Your task to perform on an android device: install app "ColorNote Notepad Notes" Image 0: 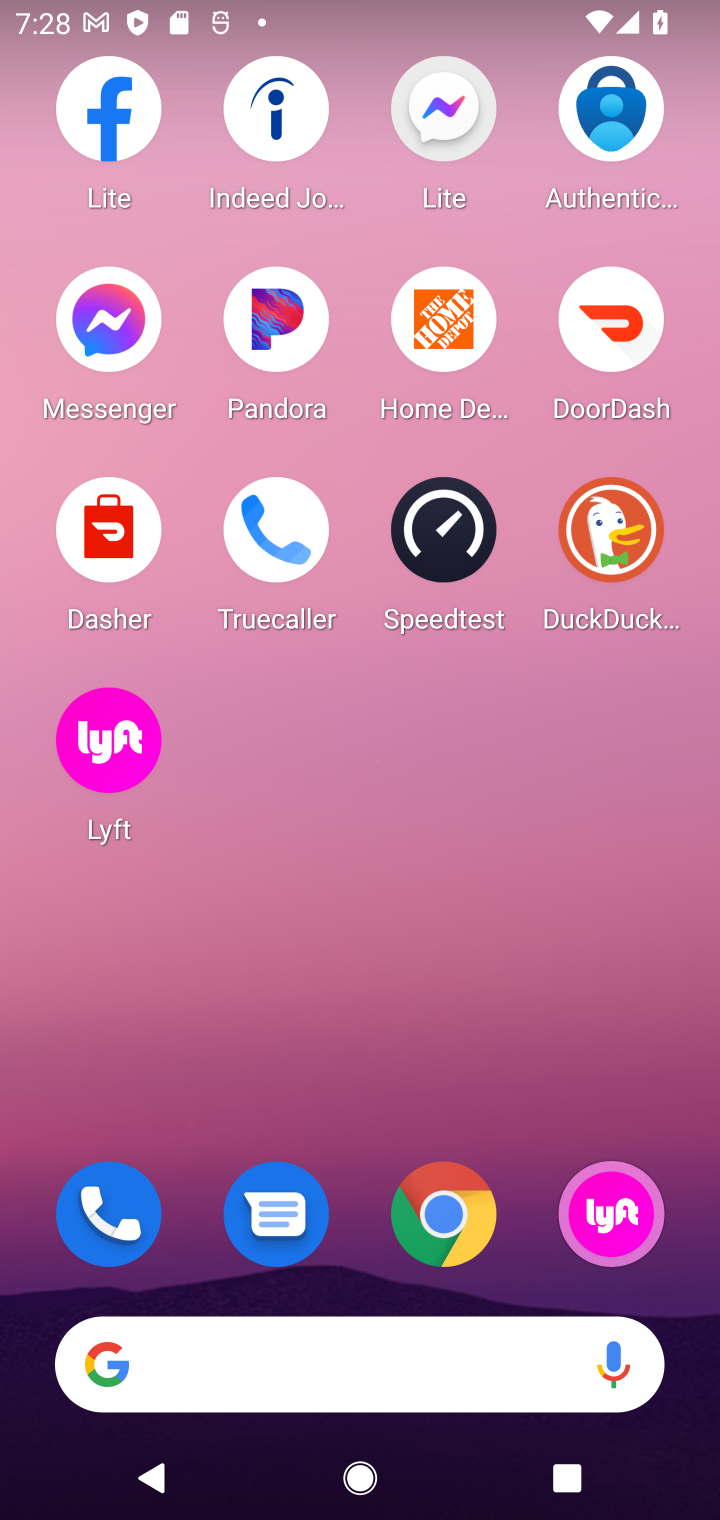
Step 0: drag from (351, 953) to (493, 29)
Your task to perform on an android device: install app "ColorNote Notepad Notes" Image 1: 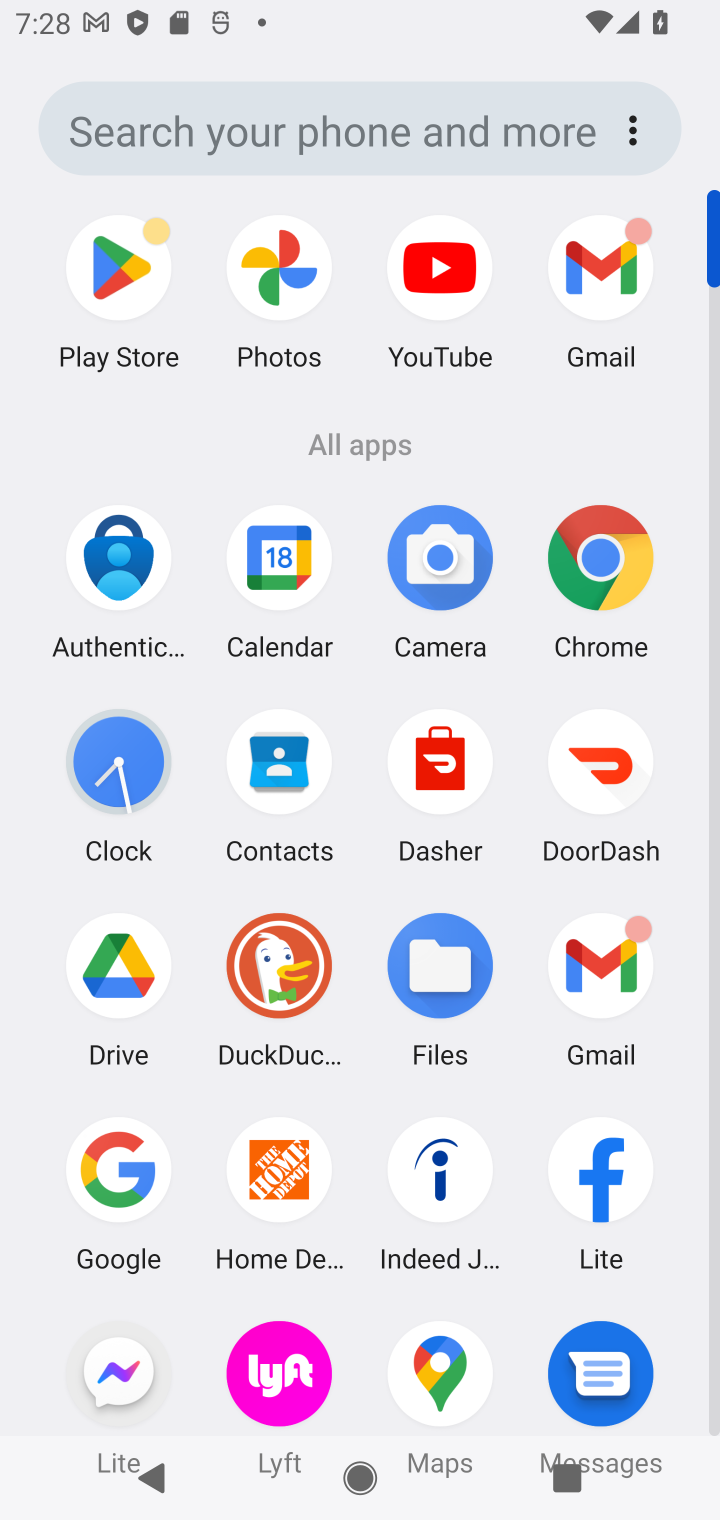
Step 1: click (128, 278)
Your task to perform on an android device: install app "ColorNote Notepad Notes" Image 2: 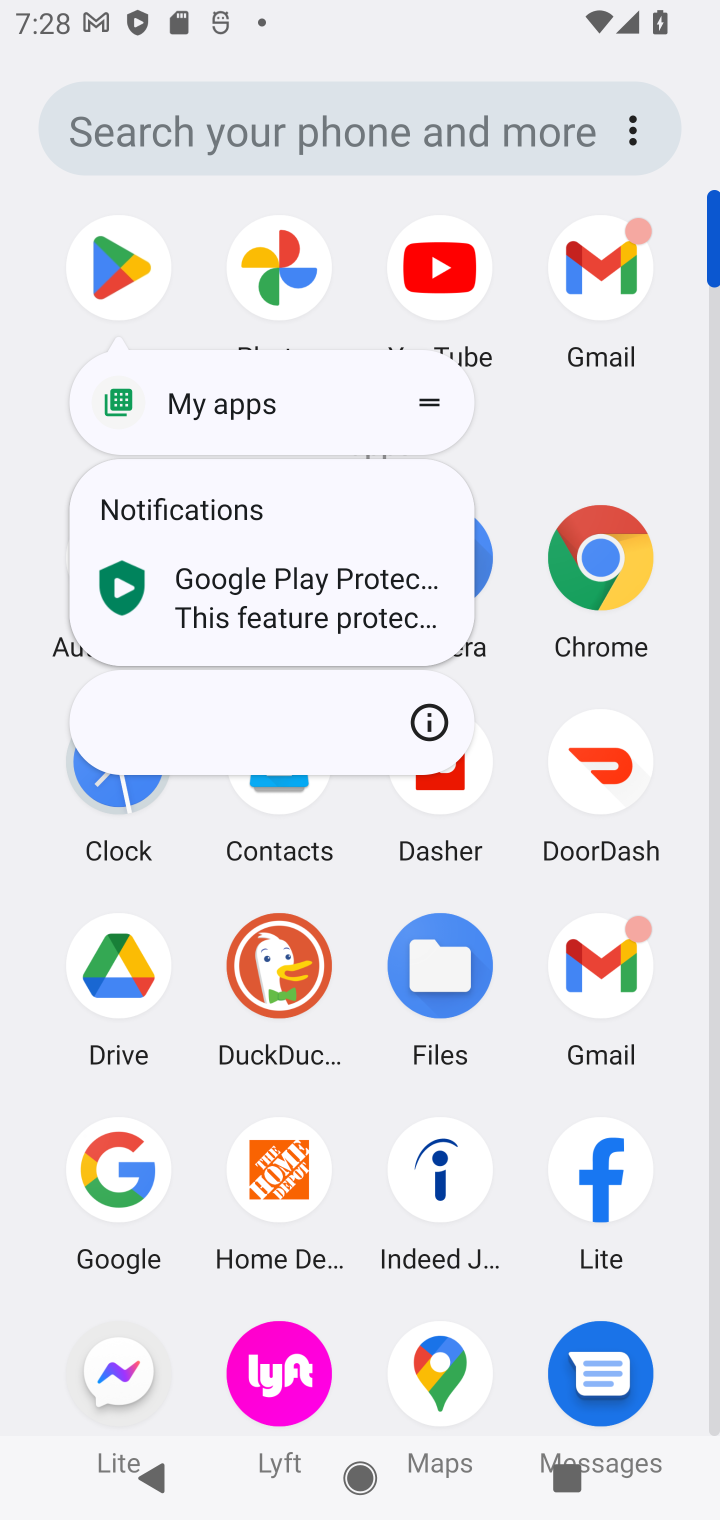
Step 2: click (133, 269)
Your task to perform on an android device: install app "ColorNote Notepad Notes" Image 3: 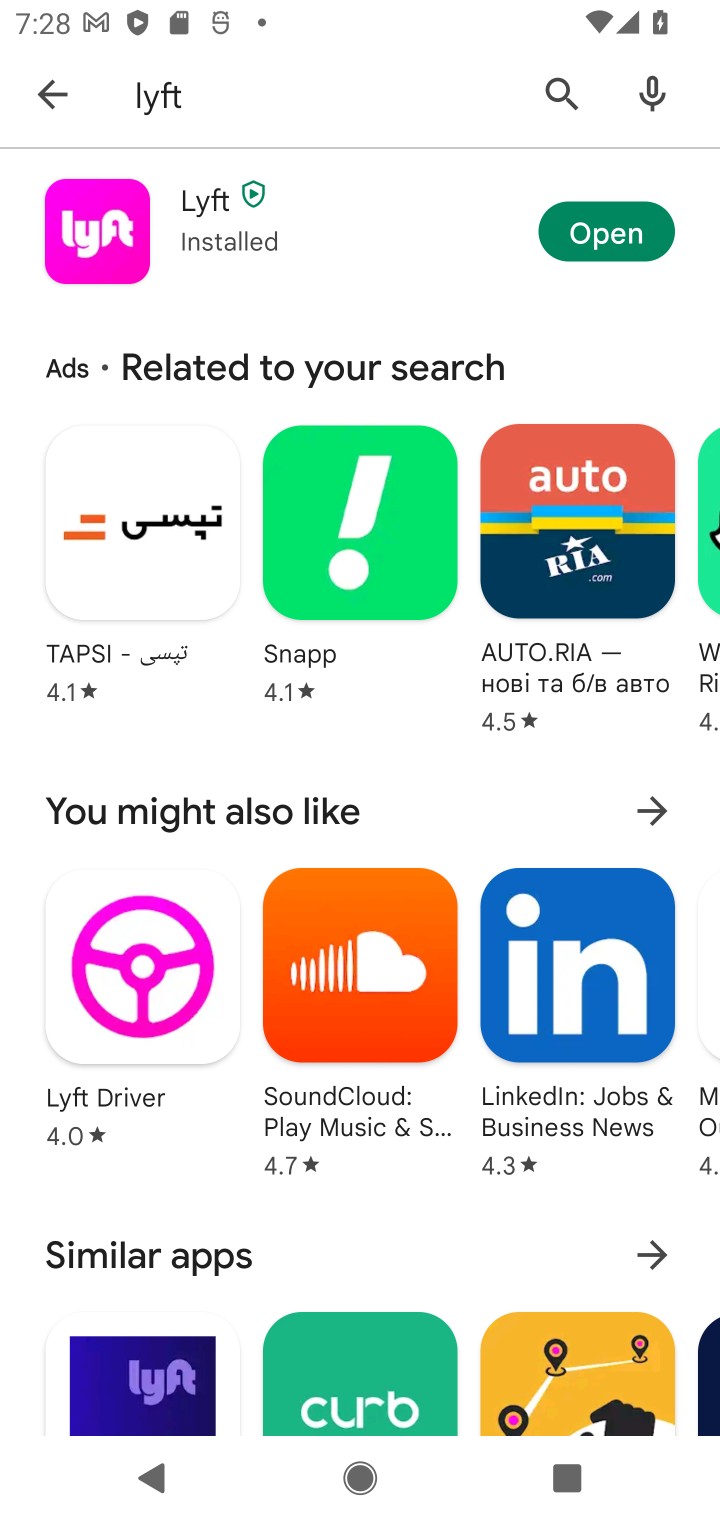
Step 3: click (543, 117)
Your task to perform on an android device: install app "ColorNote Notepad Notes" Image 4: 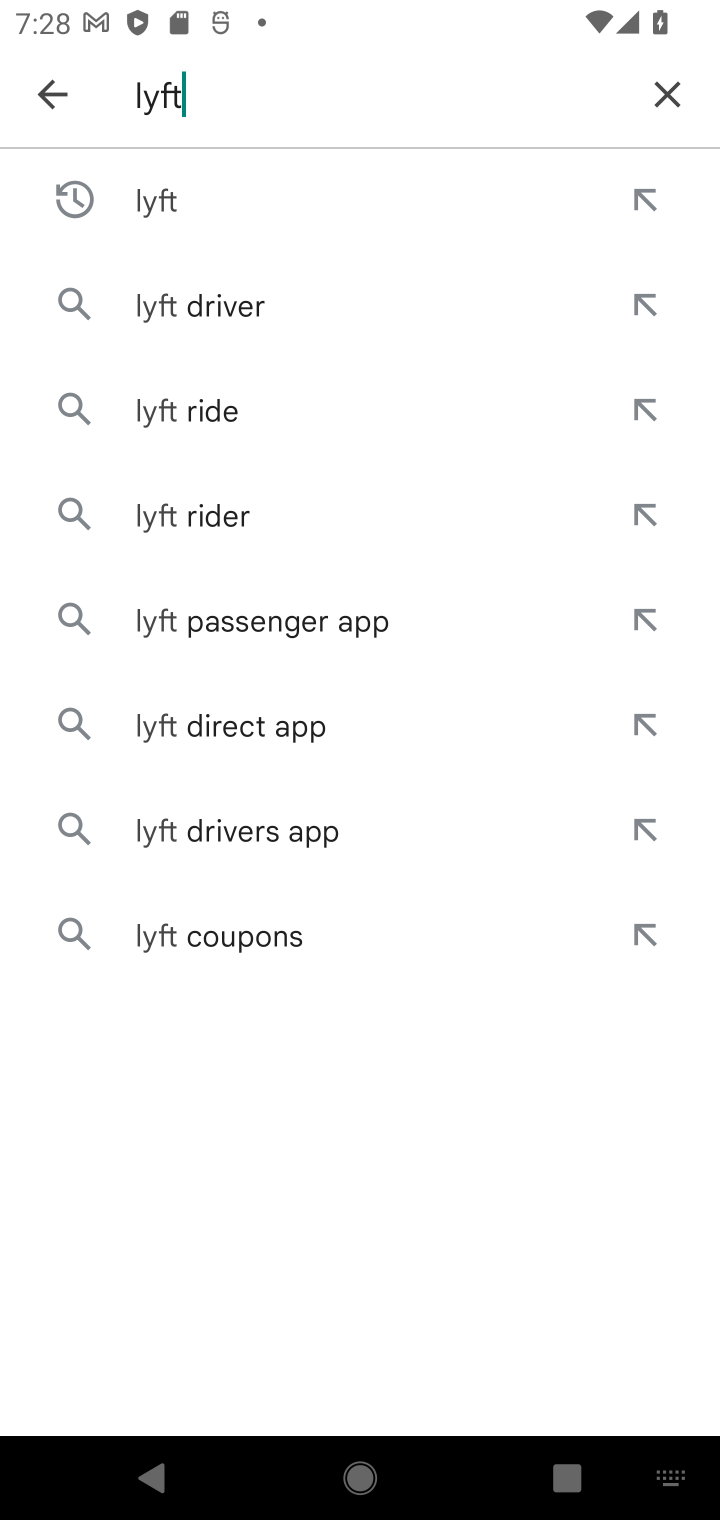
Step 4: click (655, 93)
Your task to perform on an android device: install app "ColorNote Notepad Notes" Image 5: 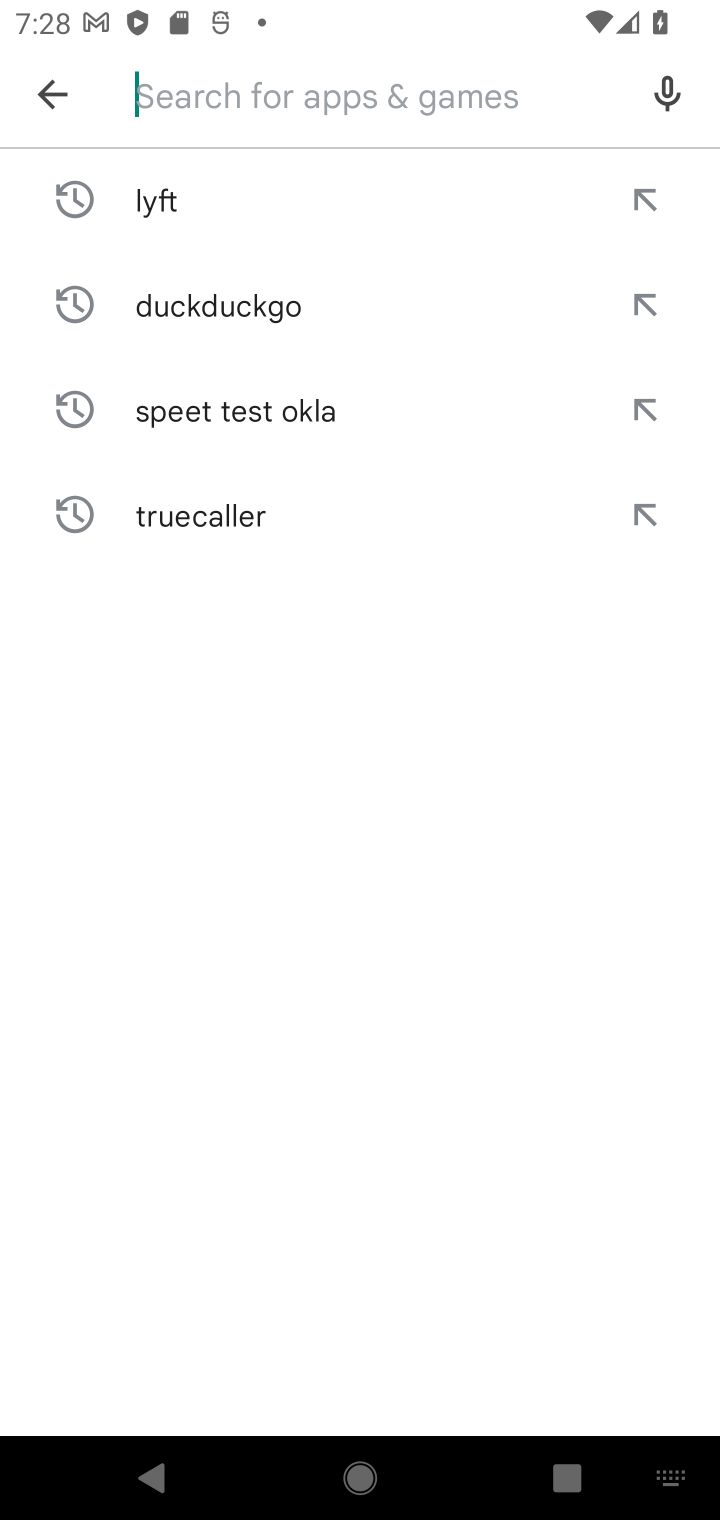
Step 5: type "colornotepad"
Your task to perform on an android device: install app "ColorNote Notepad Notes" Image 6: 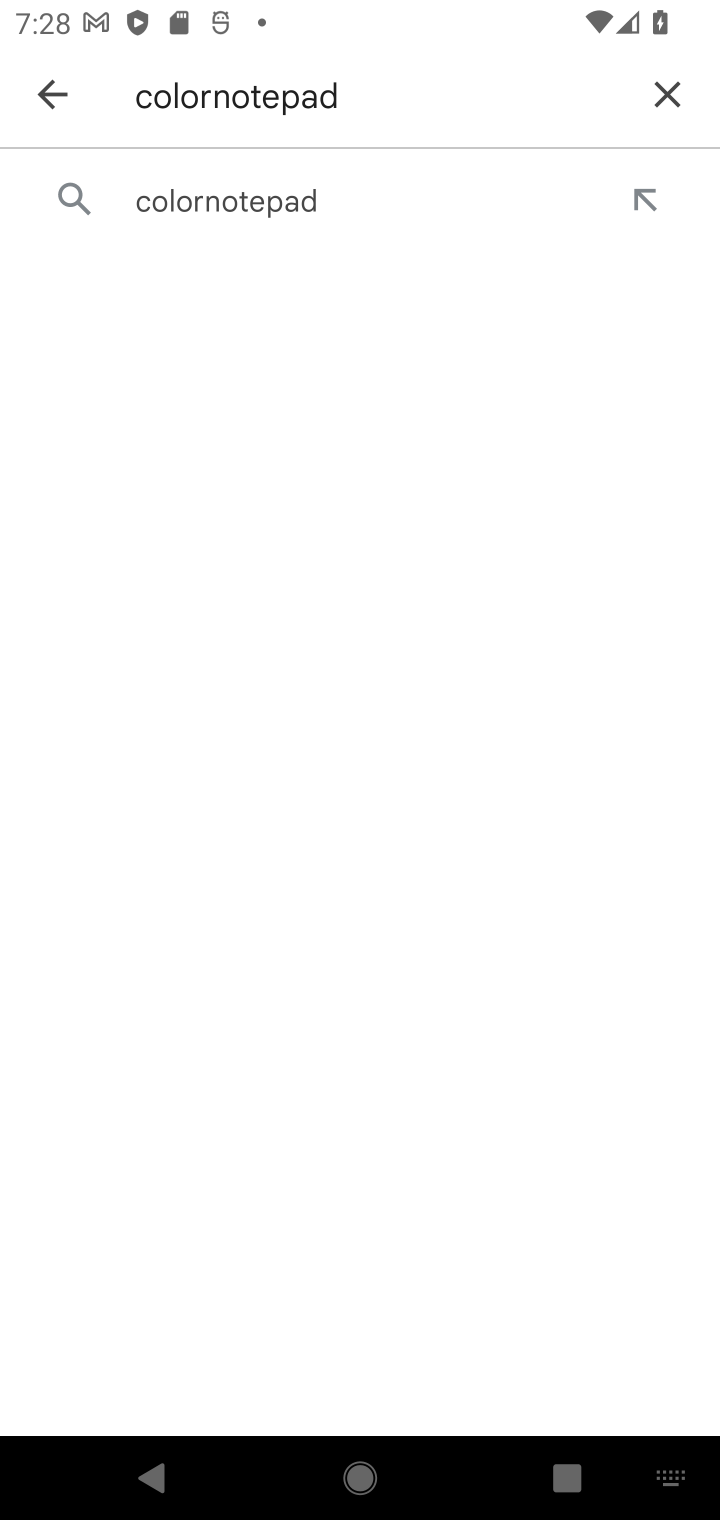
Step 6: click (268, 194)
Your task to perform on an android device: install app "ColorNote Notepad Notes" Image 7: 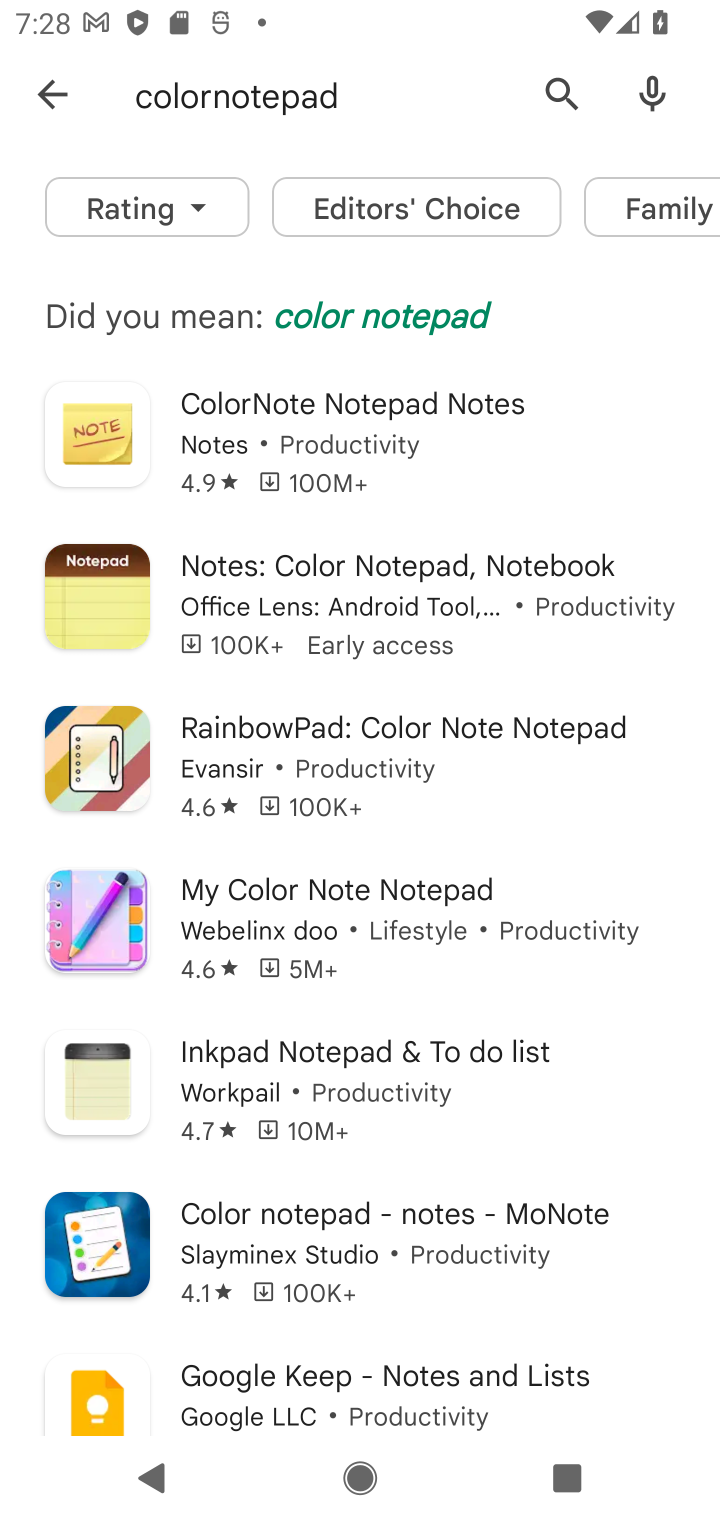
Step 7: click (329, 440)
Your task to perform on an android device: install app "ColorNote Notepad Notes" Image 8: 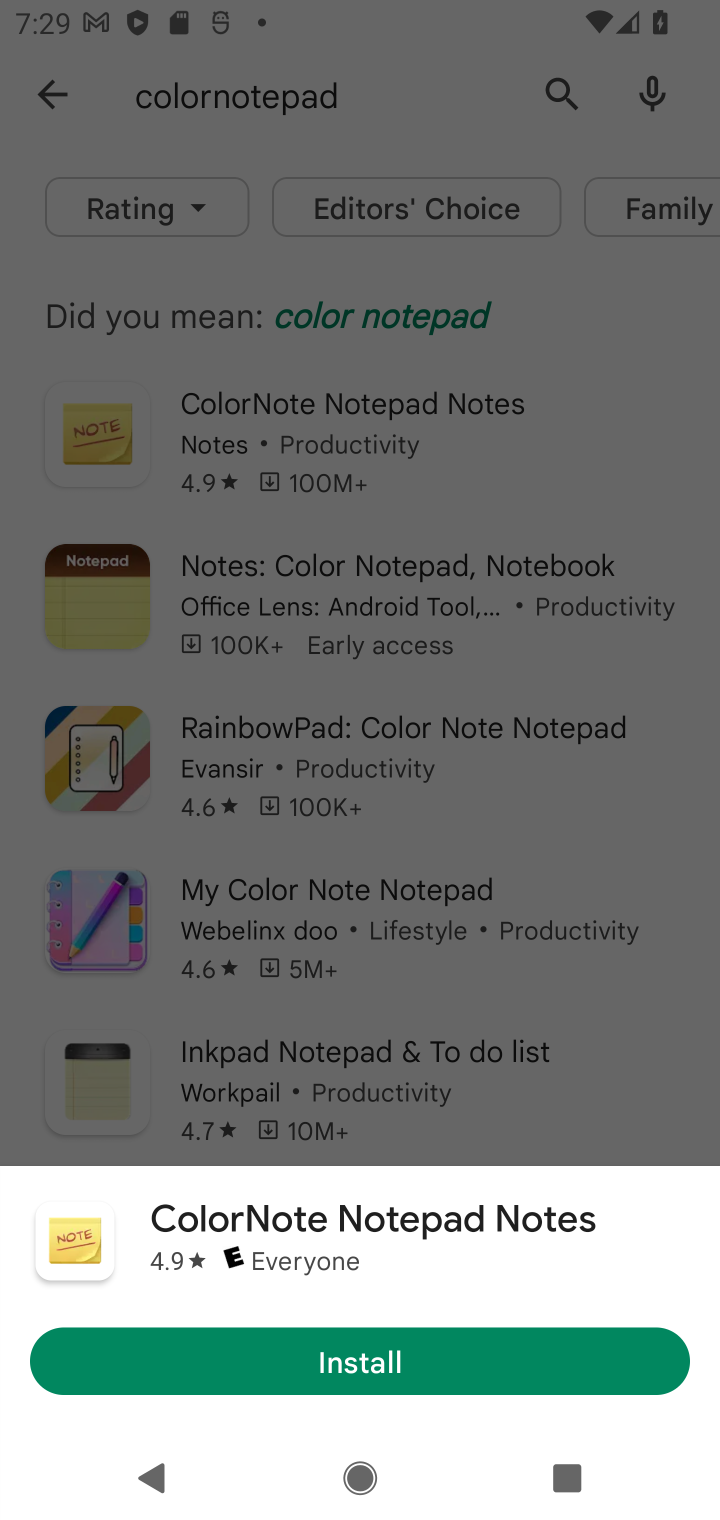
Step 8: click (370, 1354)
Your task to perform on an android device: install app "ColorNote Notepad Notes" Image 9: 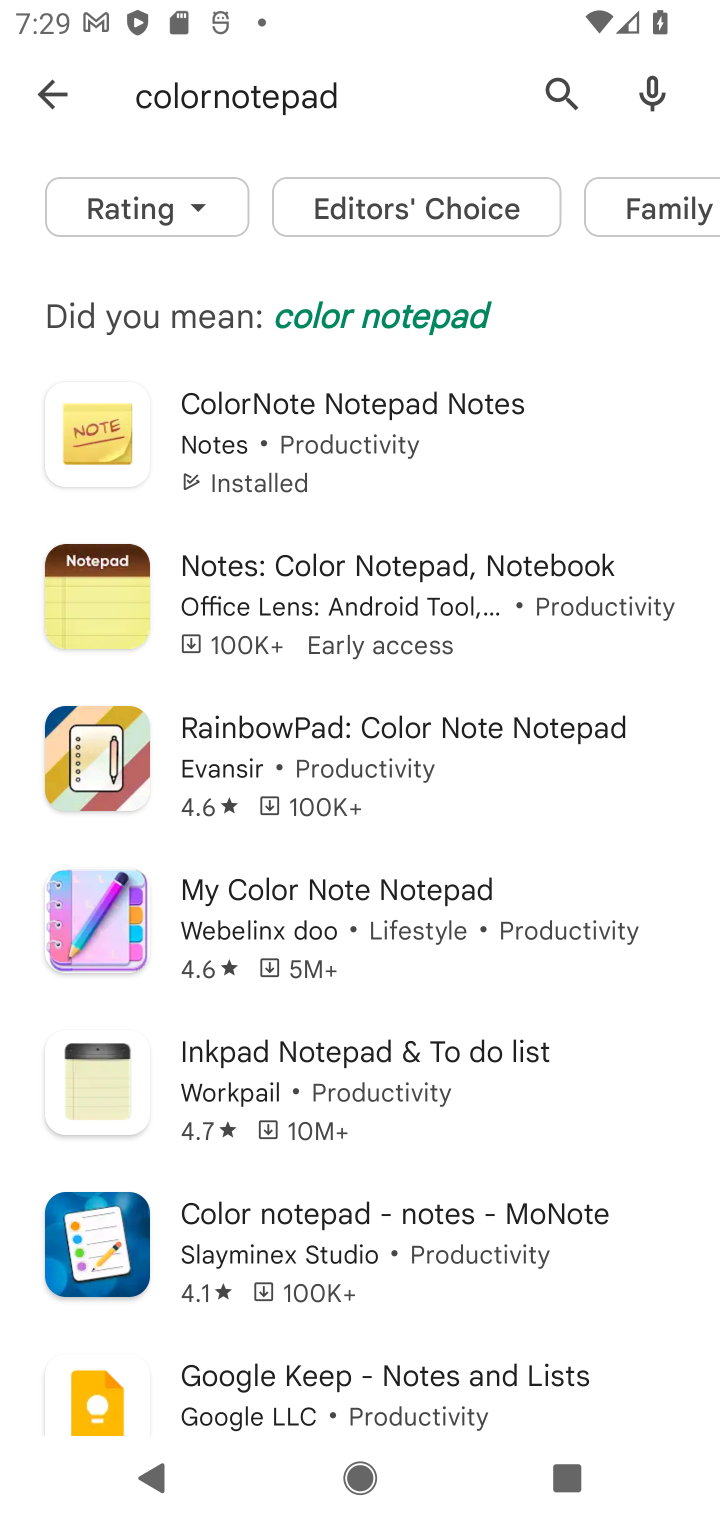
Step 9: click (345, 457)
Your task to perform on an android device: install app "ColorNote Notepad Notes" Image 10: 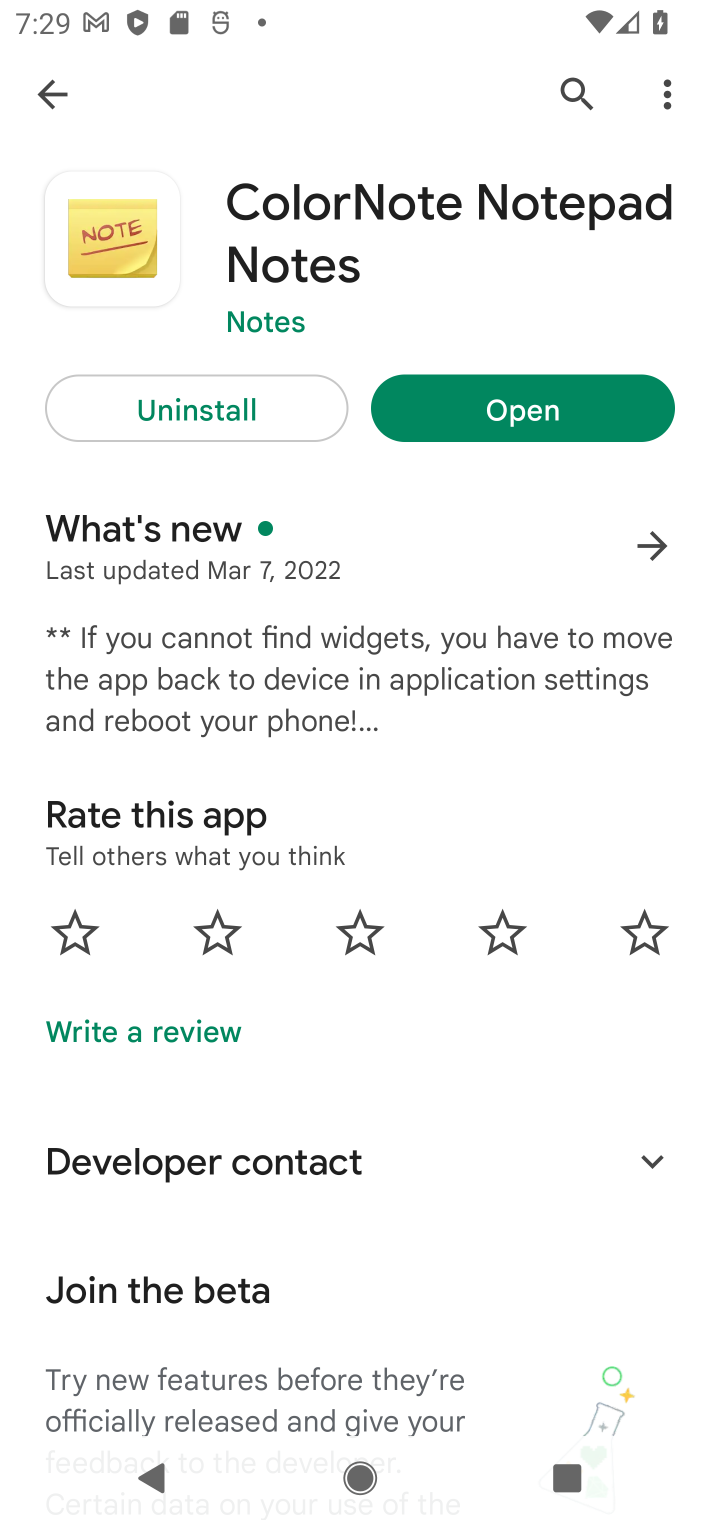
Step 10: click (464, 405)
Your task to perform on an android device: install app "ColorNote Notepad Notes" Image 11: 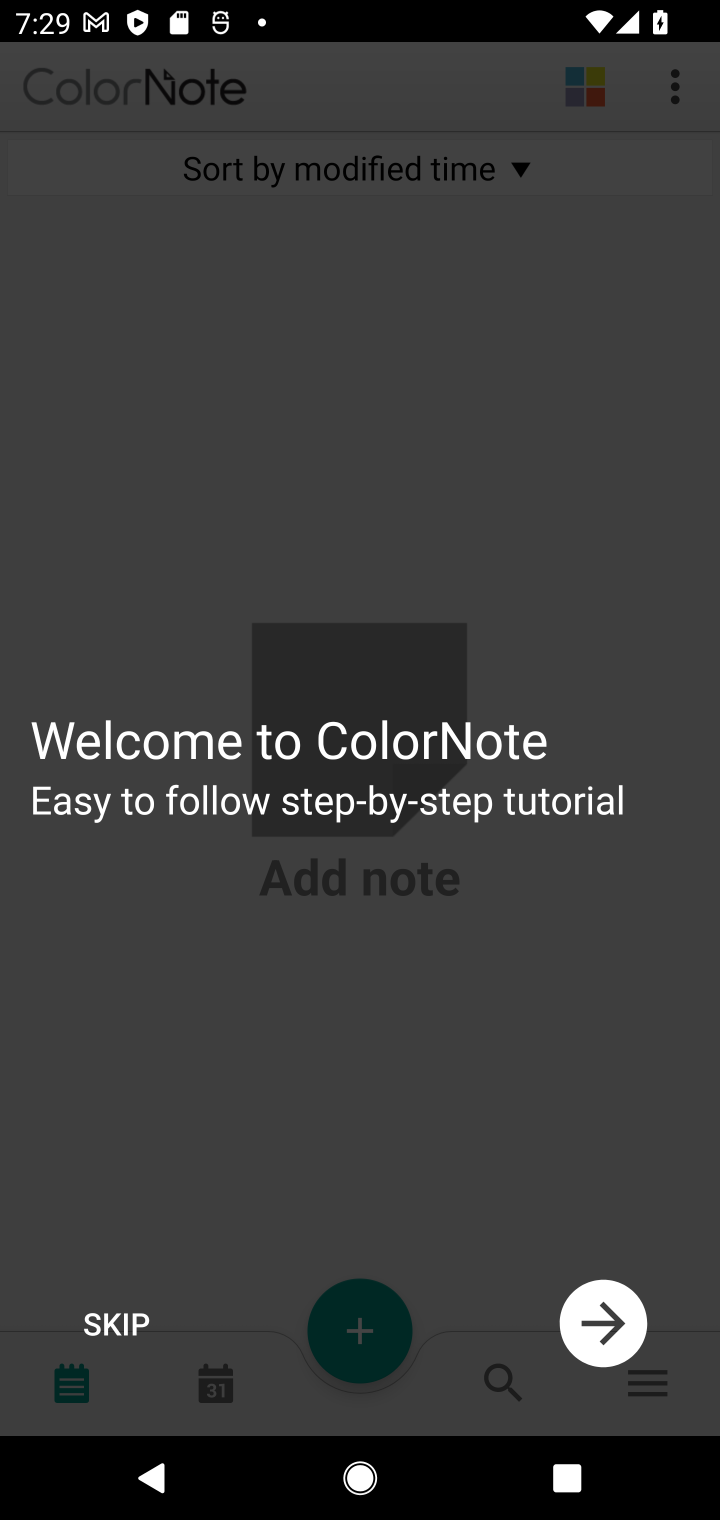
Step 11: task complete